Your task to perform on an android device: Open my contact list Image 0: 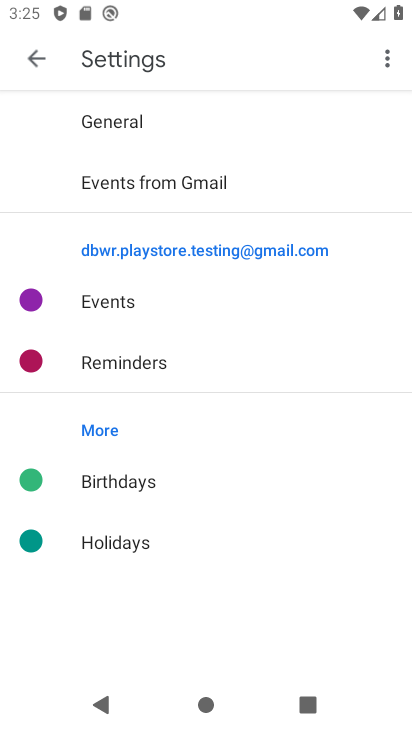
Step 0: press home button
Your task to perform on an android device: Open my contact list Image 1: 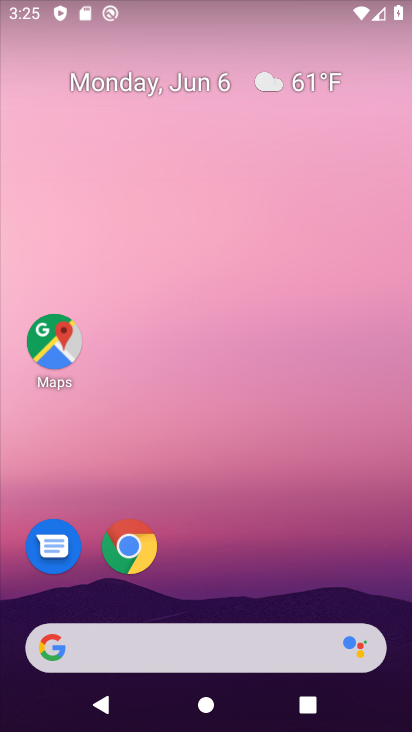
Step 1: drag from (235, 601) to (222, 215)
Your task to perform on an android device: Open my contact list Image 2: 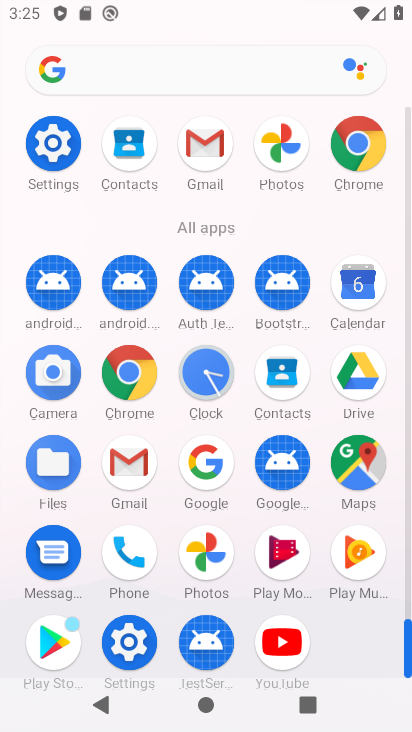
Step 2: click (286, 380)
Your task to perform on an android device: Open my contact list Image 3: 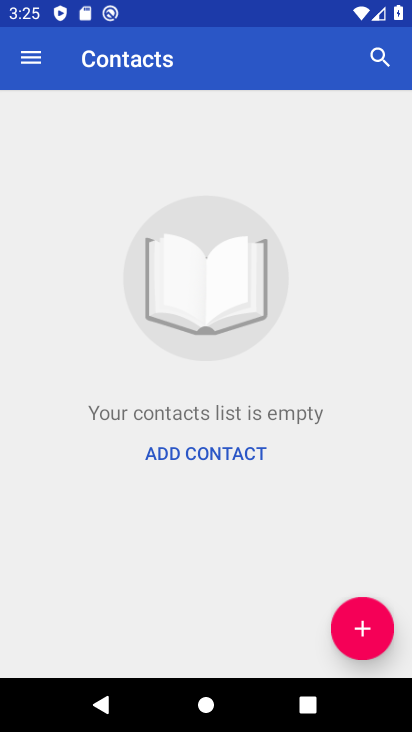
Step 3: task complete